Your task to perform on an android device: Go to display settings Image 0: 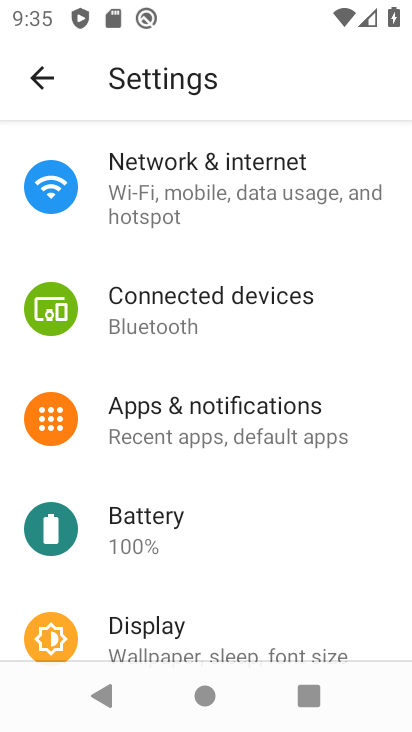
Step 0: click (184, 620)
Your task to perform on an android device: Go to display settings Image 1: 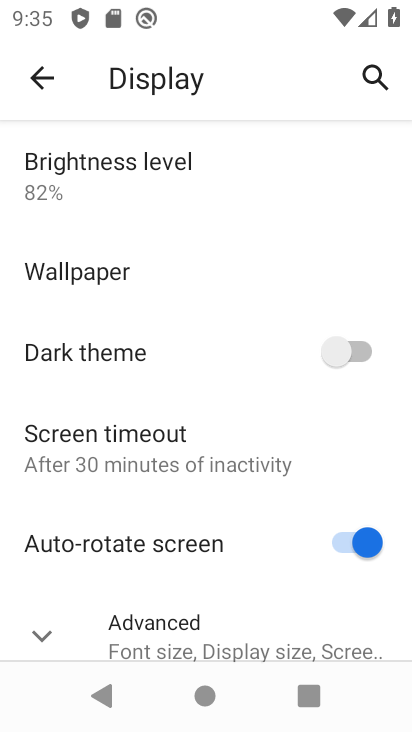
Step 1: task complete